Your task to perform on an android device: Open maps Image 0: 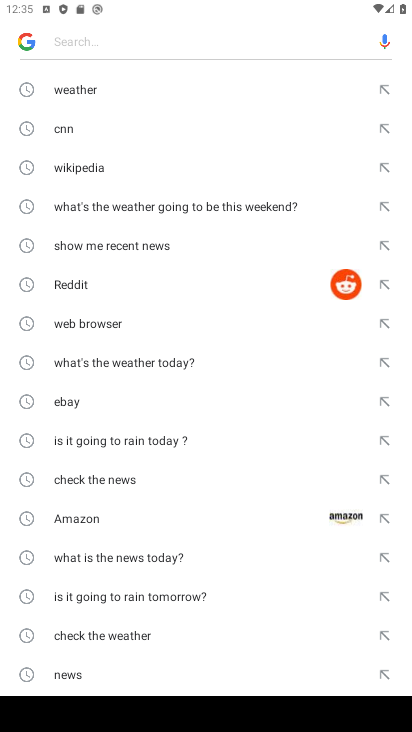
Step 0: press home button
Your task to perform on an android device: Open maps Image 1: 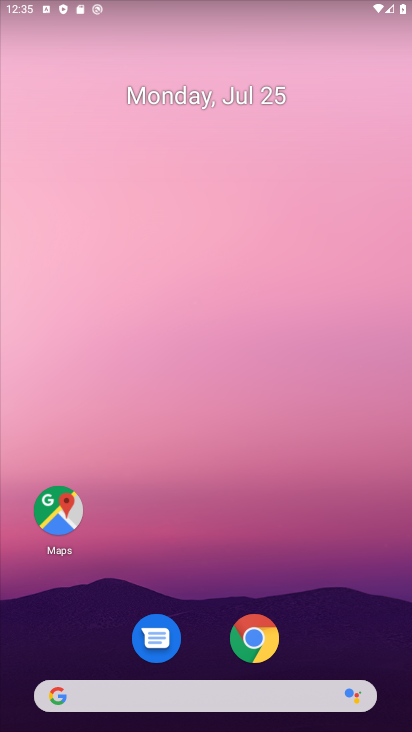
Step 1: click (76, 483)
Your task to perform on an android device: Open maps Image 2: 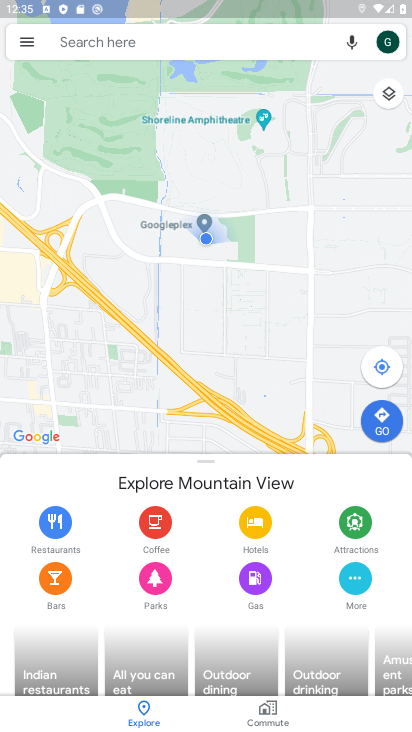
Step 2: task complete